Your task to perform on an android device: Is it going to rain tomorrow? Image 0: 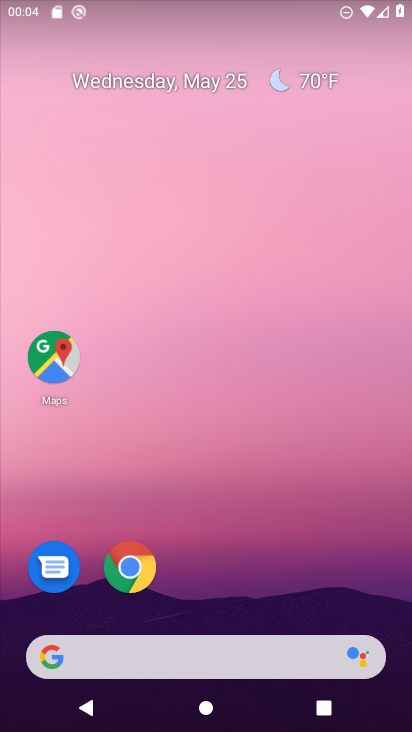
Step 0: press home button
Your task to perform on an android device: Is it going to rain tomorrow? Image 1: 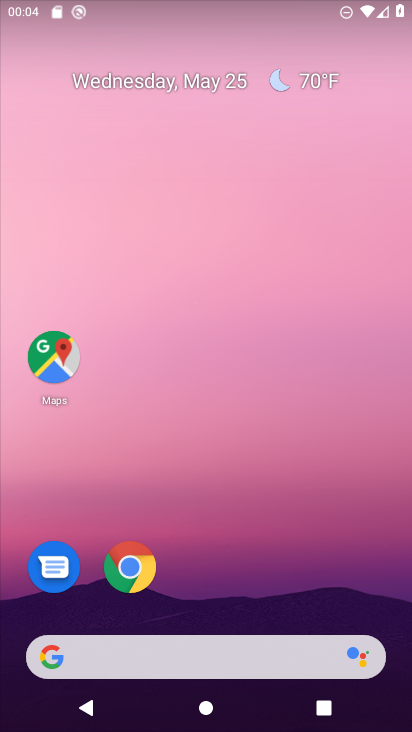
Step 1: click (316, 78)
Your task to perform on an android device: Is it going to rain tomorrow? Image 2: 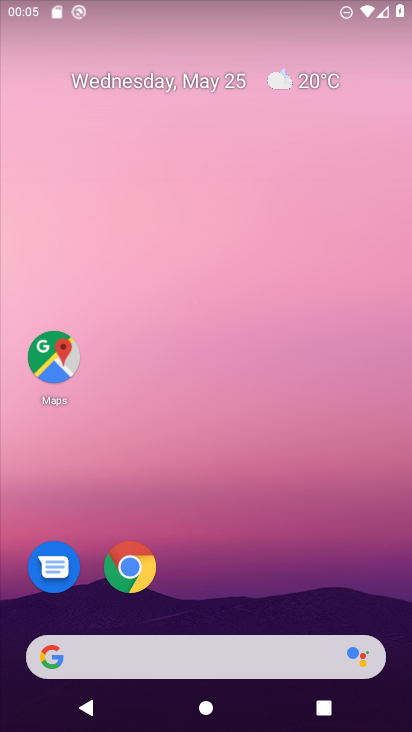
Step 2: drag from (322, 477) to (232, 49)
Your task to perform on an android device: Is it going to rain tomorrow? Image 3: 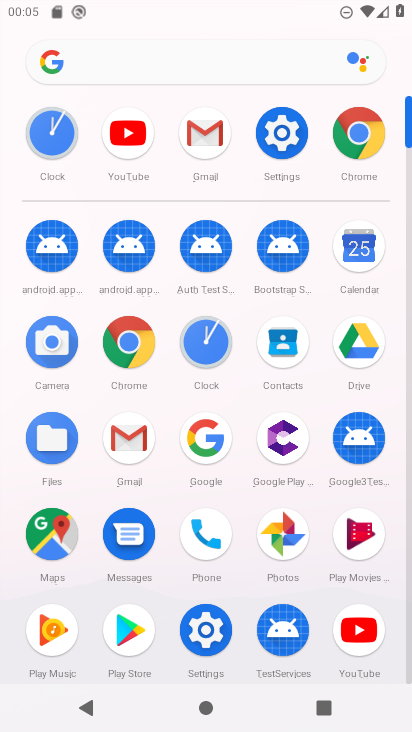
Step 3: click (213, 412)
Your task to perform on an android device: Is it going to rain tomorrow? Image 4: 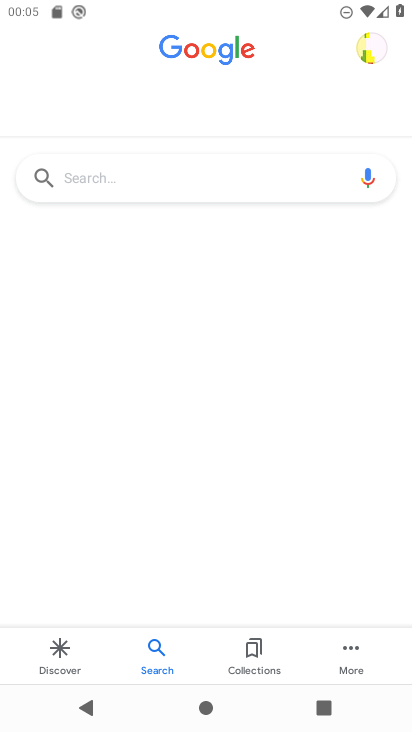
Step 4: click (170, 177)
Your task to perform on an android device: Is it going to rain tomorrow? Image 5: 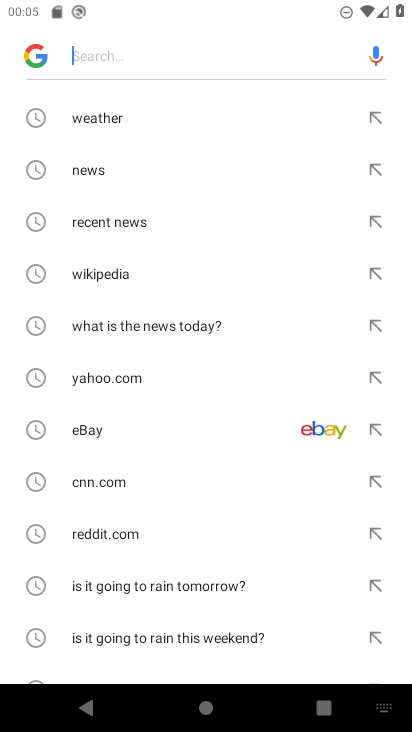
Step 5: click (102, 116)
Your task to perform on an android device: Is it going to rain tomorrow? Image 6: 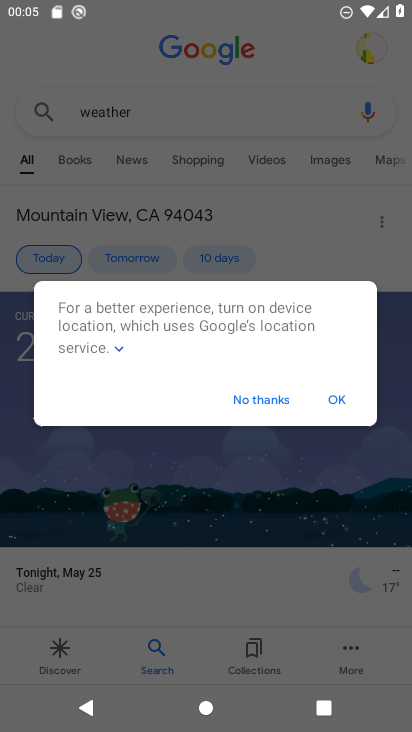
Step 6: click (273, 398)
Your task to perform on an android device: Is it going to rain tomorrow? Image 7: 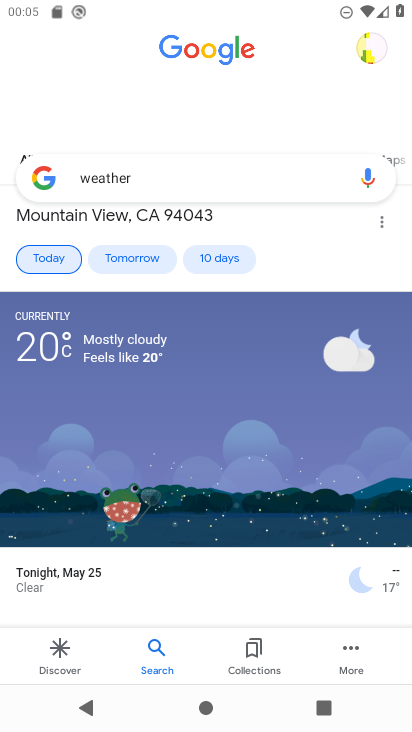
Step 7: click (130, 259)
Your task to perform on an android device: Is it going to rain tomorrow? Image 8: 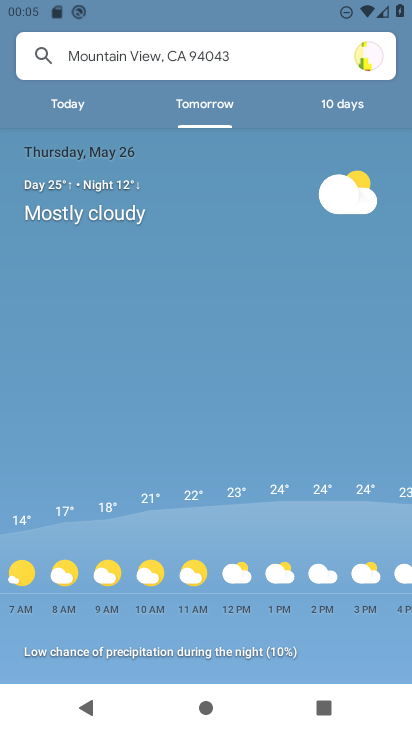
Step 8: task complete